Your task to perform on an android device: open sync settings in chrome Image 0: 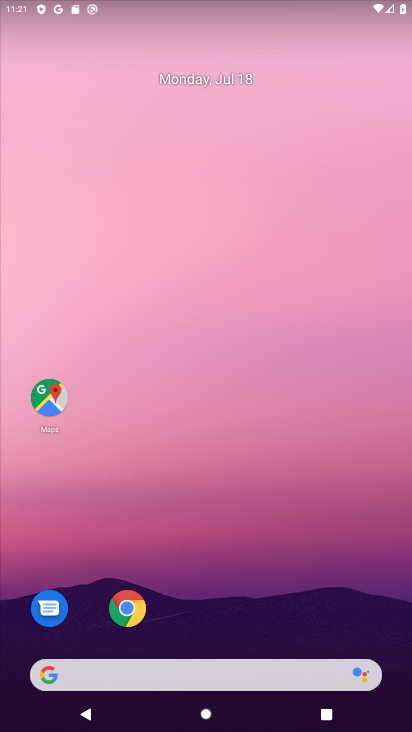
Step 0: click (123, 607)
Your task to perform on an android device: open sync settings in chrome Image 1: 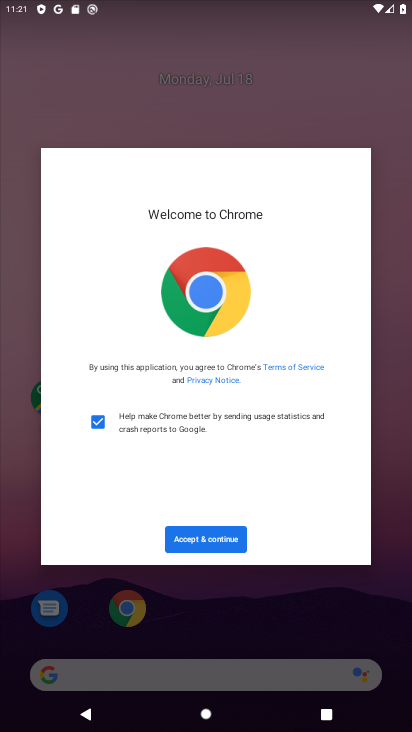
Step 1: click (228, 526)
Your task to perform on an android device: open sync settings in chrome Image 2: 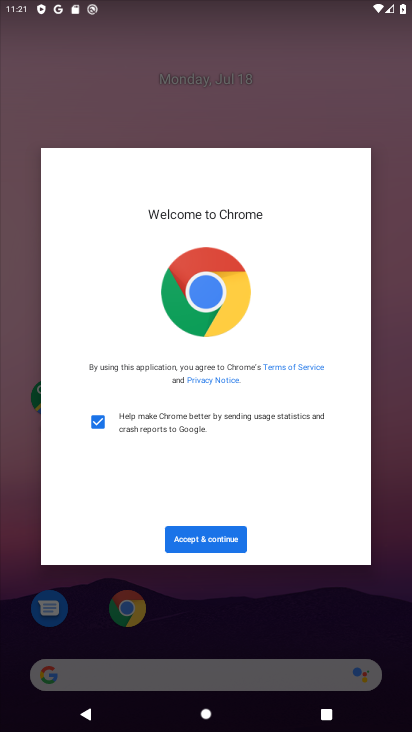
Step 2: click (225, 547)
Your task to perform on an android device: open sync settings in chrome Image 3: 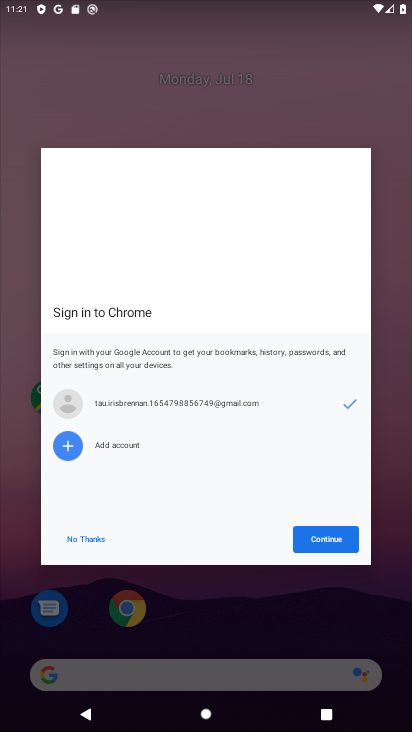
Step 3: click (305, 543)
Your task to perform on an android device: open sync settings in chrome Image 4: 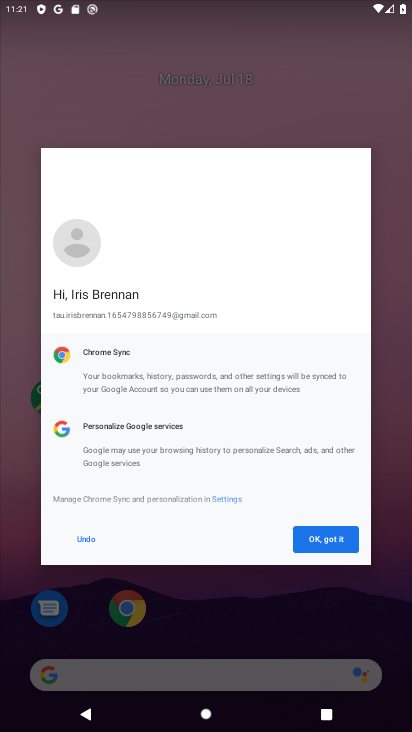
Step 4: click (305, 543)
Your task to perform on an android device: open sync settings in chrome Image 5: 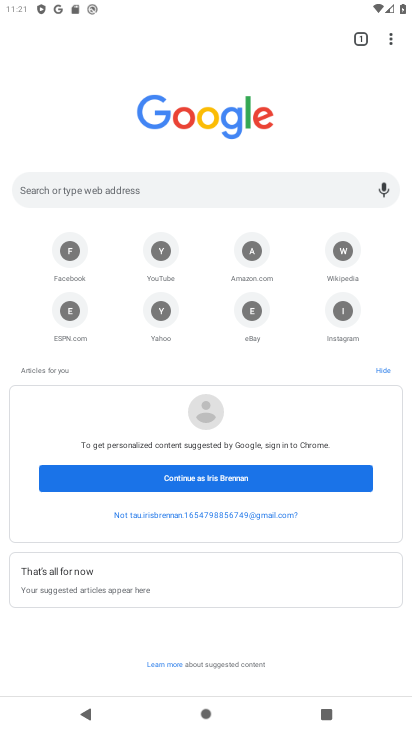
Step 5: click (395, 38)
Your task to perform on an android device: open sync settings in chrome Image 6: 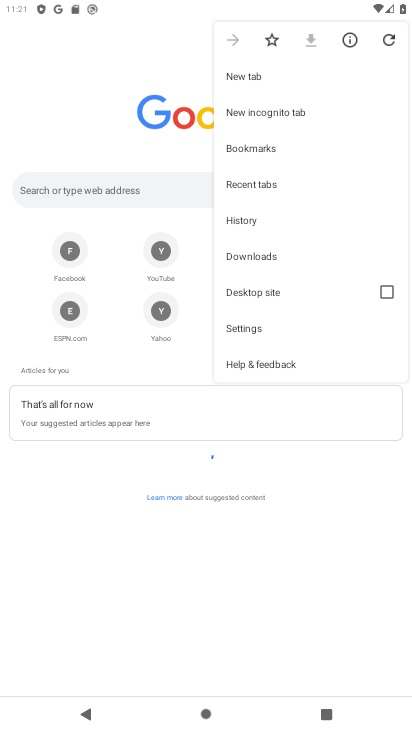
Step 6: click (239, 328)
Your task to perform on an android device: open sync settings in chrome Image 7: 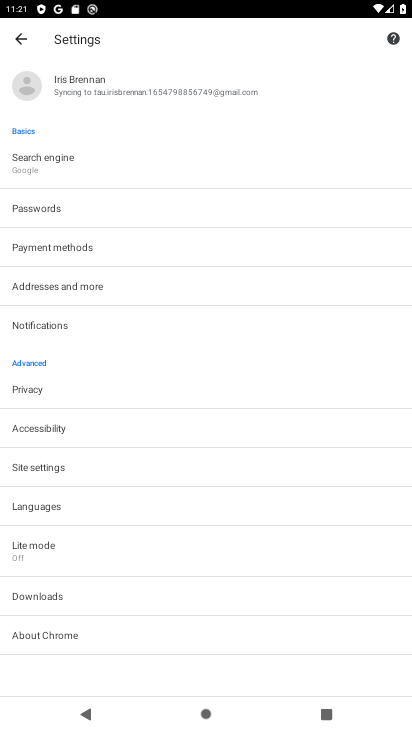
Step 7: click (112, 89)
Your task to perform on an android device: open sync settings in chrome Image 8: 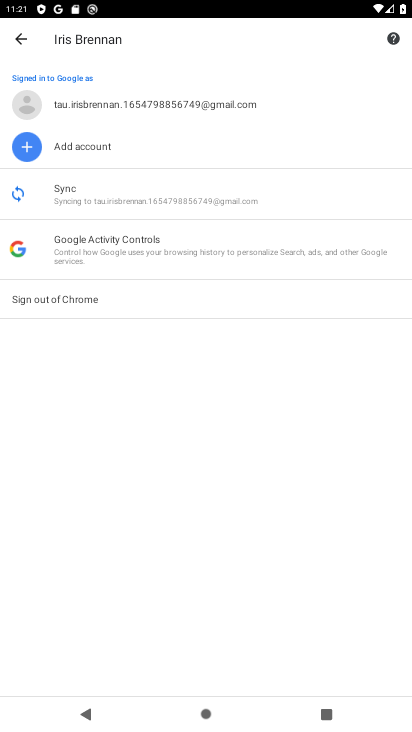
Step 8: click (71, 192)
Your task to perform on an android device: open sync settings in chrome Image 9: 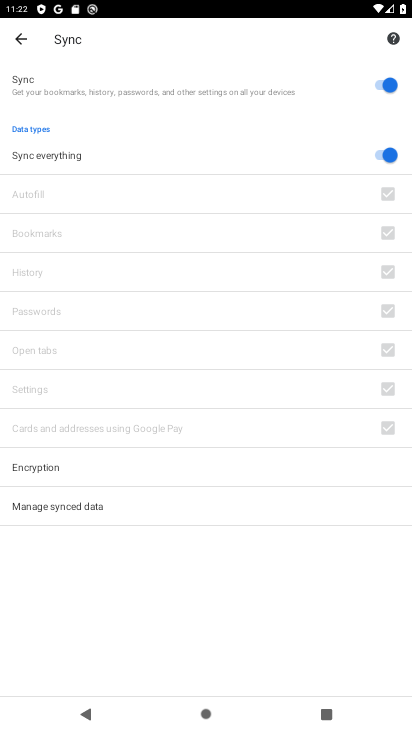
Step 9: task complete